Your task to perform on an android device: turn on translation in the chrome app Image 0: 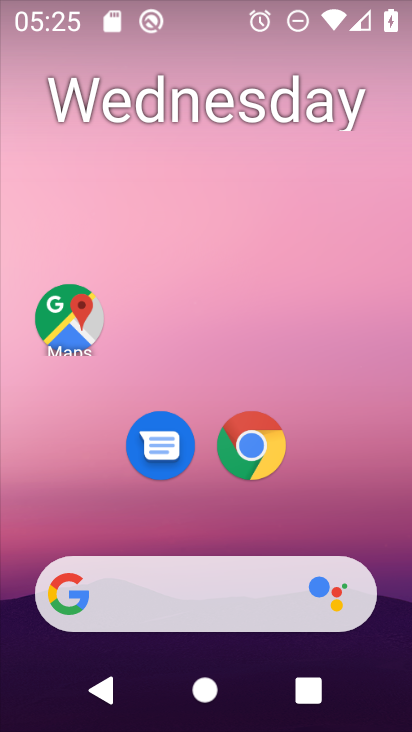
Step 0: click (245, 435)
Your task to perform on an android device: turn on translation in the chrome app Image 1: 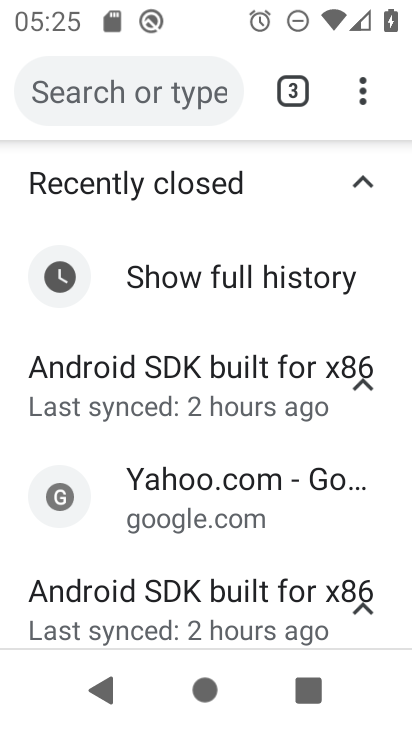
Step 1: click (382, 92)
Your task to perform on an android device: turn on translation in the chrome app Image 2: 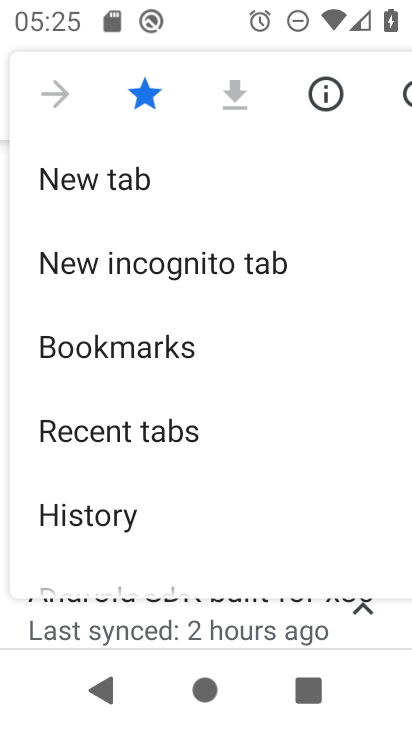
Step 2: drag from (137, 565) to (128, 300)
Your task to perform on an android device: turn on translation in the chrome app Image 3: 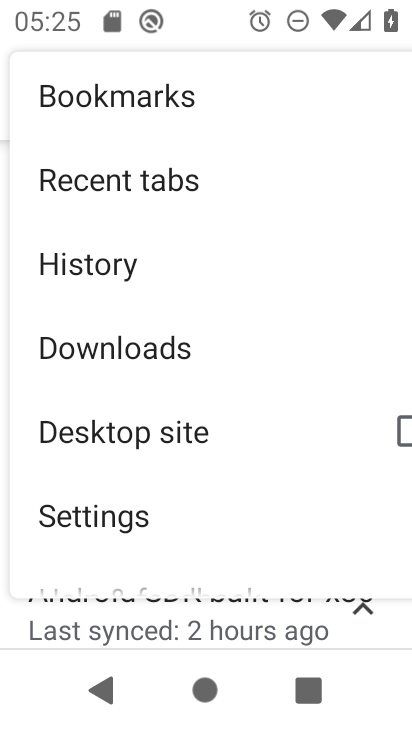
Step 3: click (140, 511)
Your task to perform on an android device: turn on translation in the chrome app Image 4: 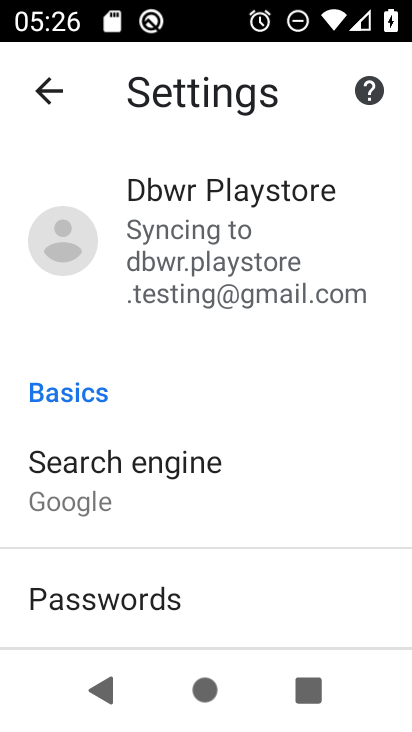
Step 4: drag from (129, 581) to (183, 154)
Your task to perform on an android device: turn on translation in the chrome app Image 5: 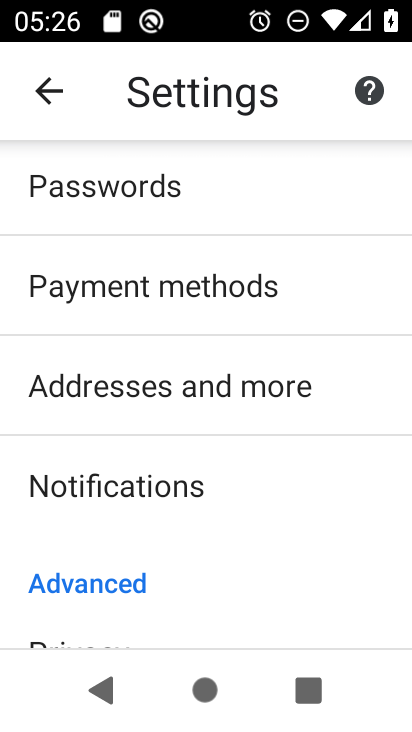
Step 5: drag from (142, 620) to (183, 210)
Your task to perform on an android device: turn on translation in the chrome app Image 6: 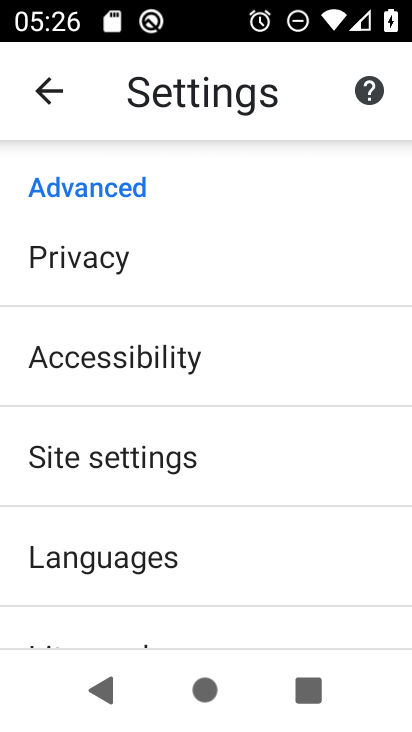
Step 6: click (140, 542)
Your task to perform on an android device: turn on translation in the chrome app Image 7: 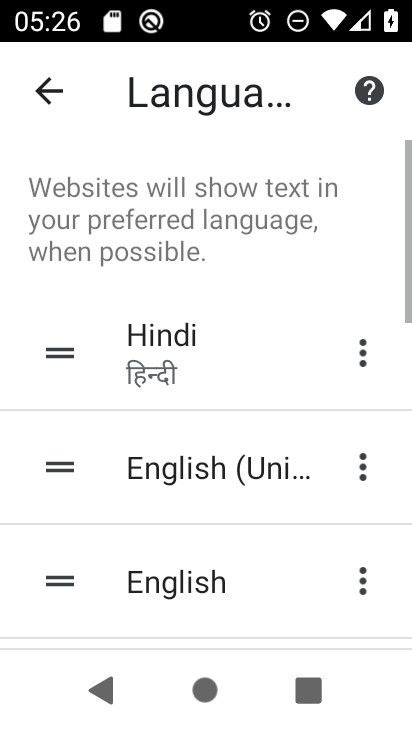
Step 7: task complete